Your task to perform on an android device: What is the news today? Image 0: 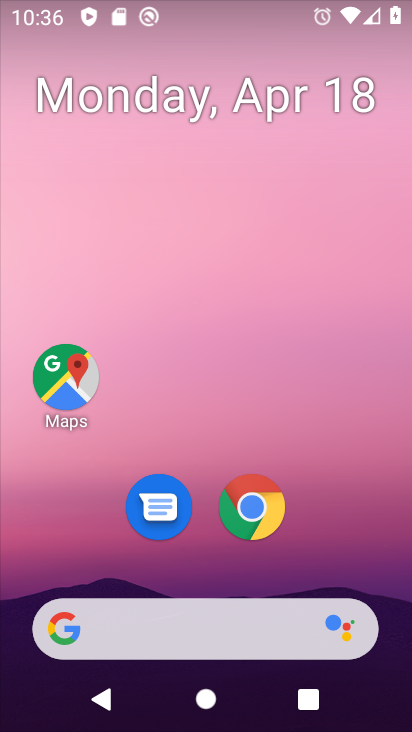
Step 0: drag from (262, 649) to (314, 255)
Your task to perform on an android device: What is the news today? Image 1: 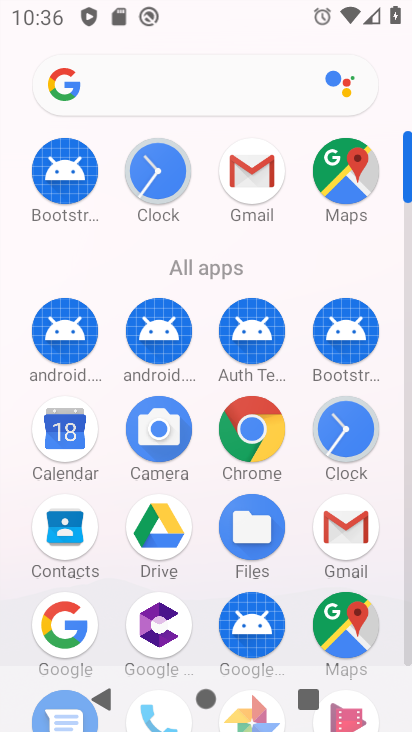
Step 1: click (109, 91)
Your task to perform on an android device: What is the news today? Image 2: 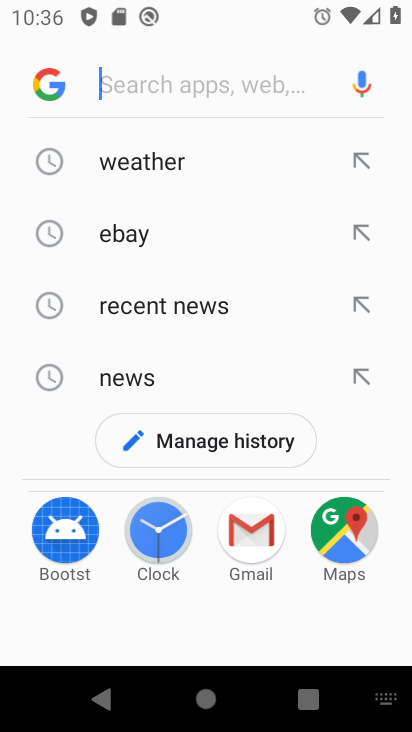
Step 2: click (51, 81)
Your task to perform on an android device: What is the news today? Image 3: 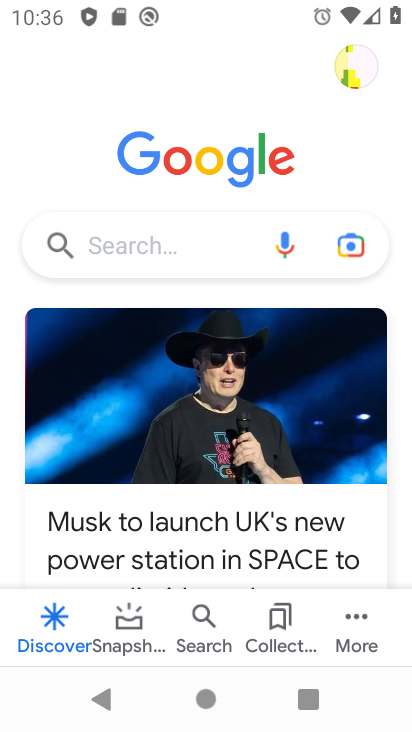
Step 3: task complete